Your task to perform on an android device: snooze an email in the gmail app Image 0: 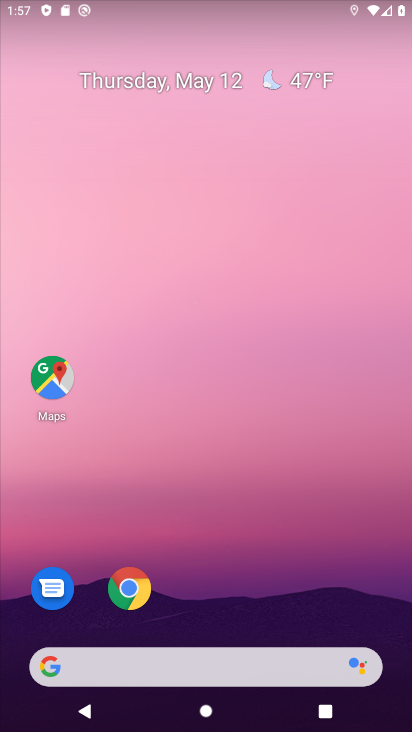
Step 0: drag from (357, 619) to (351, 80)
Your task to perform on an android device: snooze an email in the gmail app Image 1: 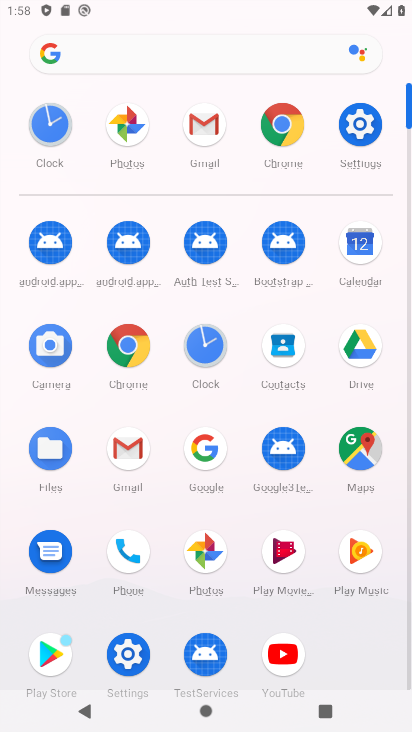
Step 1: click (143, 452)
Your task to perform on an android device: snooze an email in the gmail app Image 2: 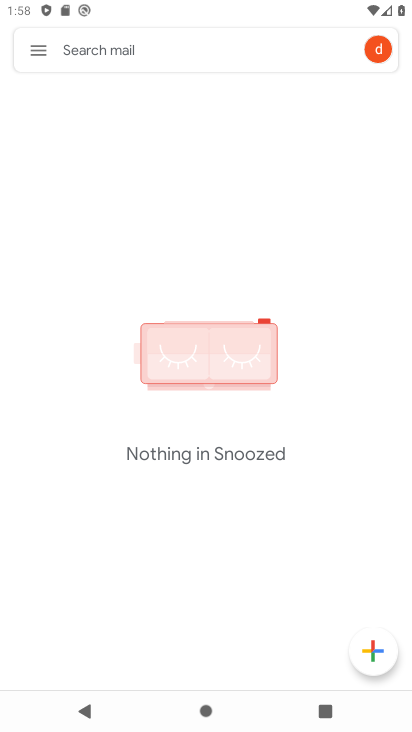
Step 2: click (26, 51)
Your task to perform on an android device: snooze an email in the gmail app Image 3: 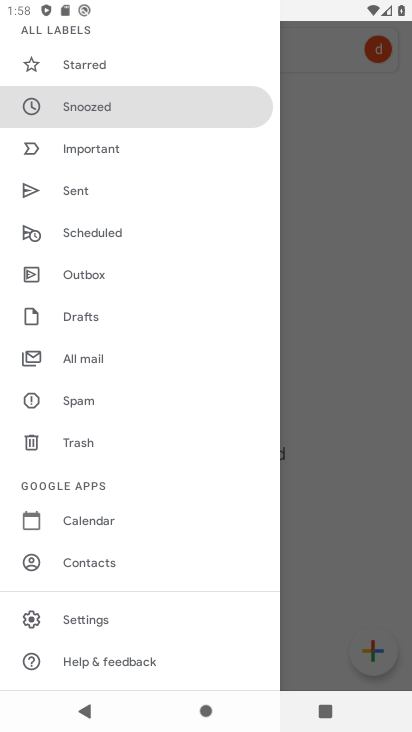
Step 3: click (110, 121)
Your task to perform on an android device: snooze an email in the gmail app Image 4: 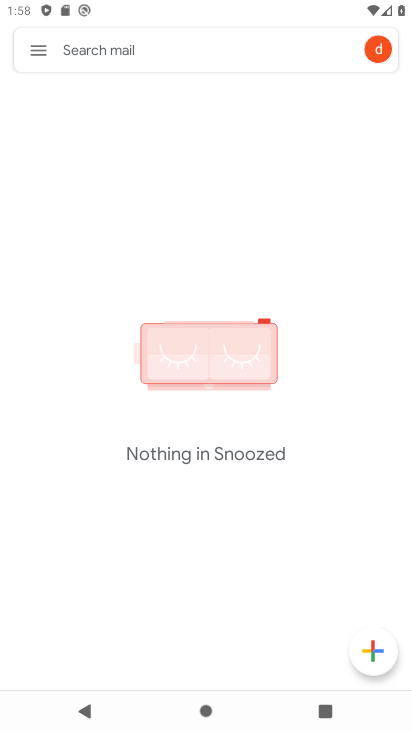
Step 4: click (42, 53)
Your task to perform on an android device: snooze an email in the gmail app Image 5: 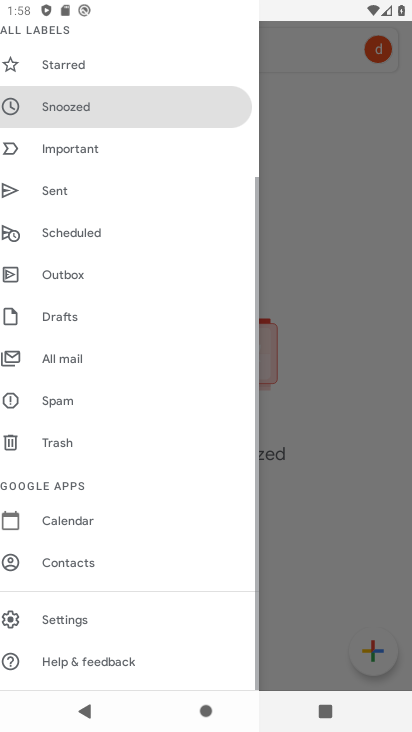
Step 5: drag from (112, 119) to (230, 544)
Your task to perform on an android device: snooze an email in the gmail app Image 6: 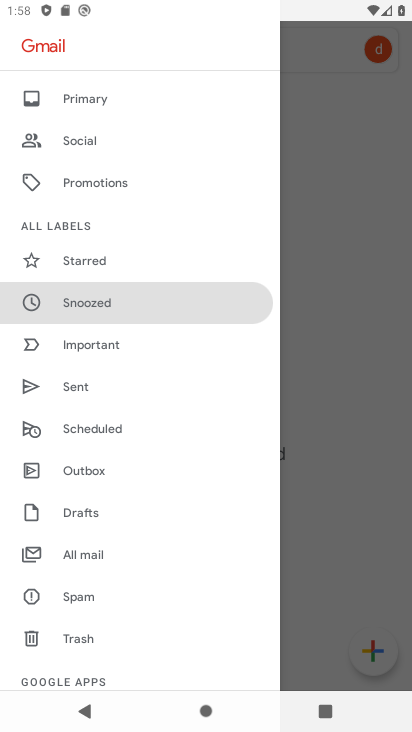
Step 6: click (204, 107)
Your task to perform on an android device: snooze an email in the gmail app Image 7: 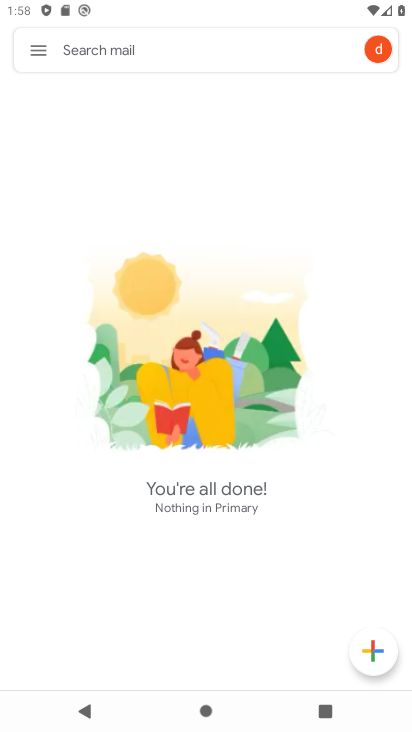
Step 7: task complete